Your task to perform on an android device: Open Google Maps and go to "Timeline" Image 0: 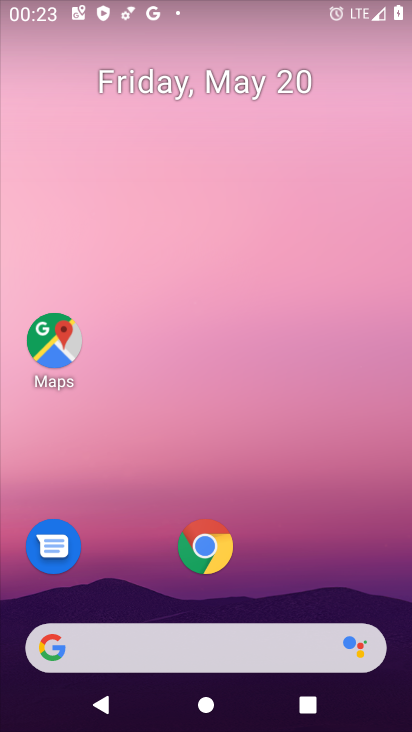
Step 0: click (62, 343)
Your task to perform on an android device: Open Google Maps and go to "Timeline" Image 1: 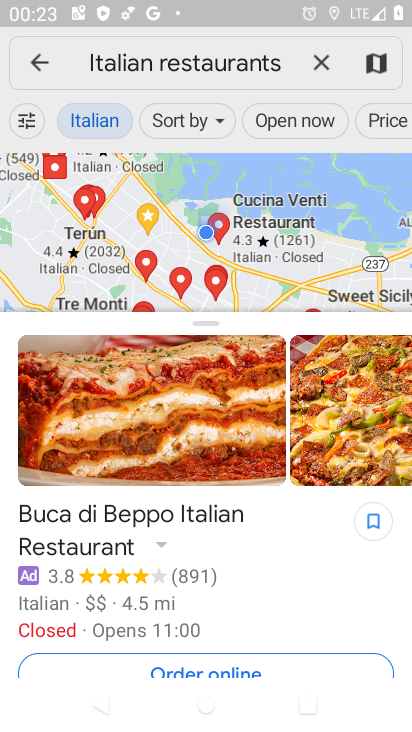
Step 1: click (41, 58)
Your task to perform on an android device: Open Google Maps and go to "Timeline" Image 2: 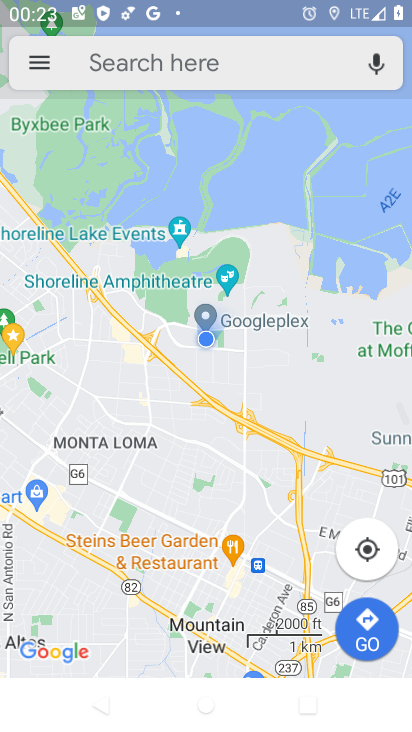
Step 2: click (42, 61)
Your task to perform on an android device: Open Google Maps and go to "Timeline" Image 3: 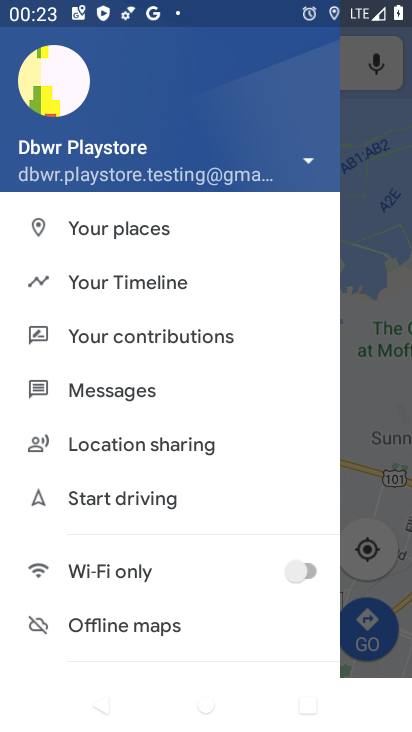
Step 3: click (119, 282)
Your task to perform on an android device: Open Google Maps and go to "Timeline" Image 4: 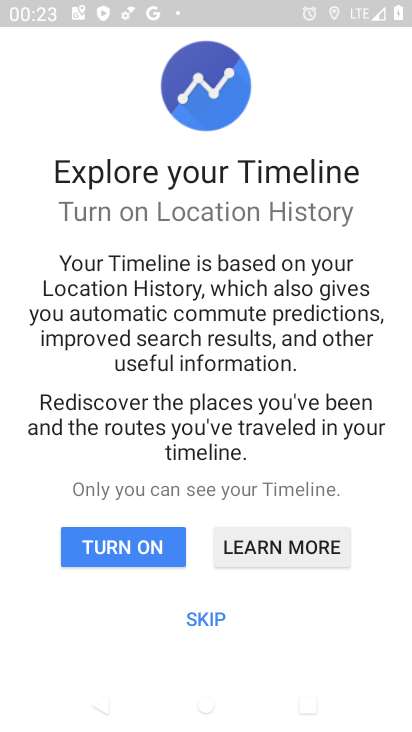
Step 4: click (208, 615)
Your task to perform on an android device: Open Google Maps and go to "Timeline" Image 5: 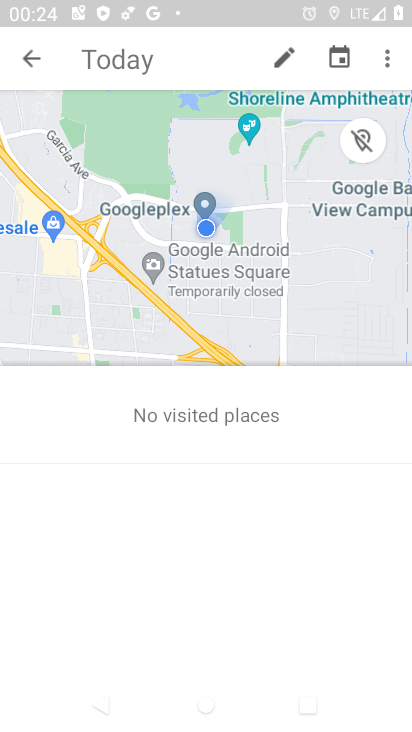
Step 5: task complete